Your task to perform on an android device: turn off location history Image 0: 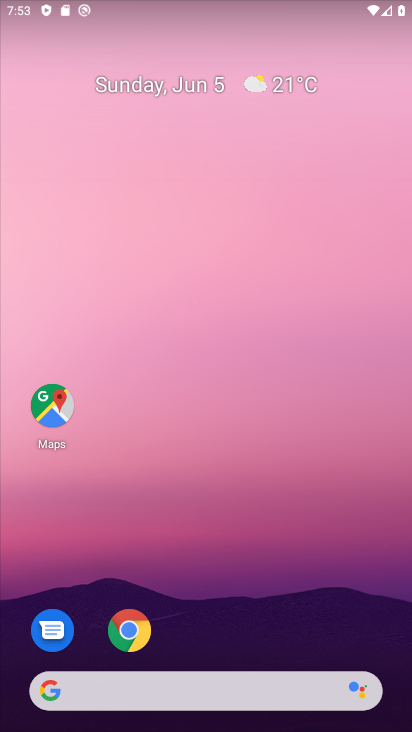
Step 0: drag from (228, 617) to (223, 292)
Your task to perform on an android device: turn off location history Image 1: 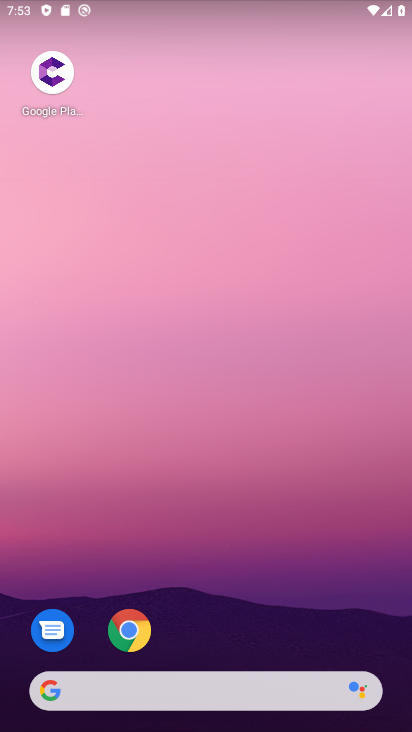
Step 1: drag from (216, 623) to (216, 268)
Your task to perform on an android device: turn off location history Image 2: 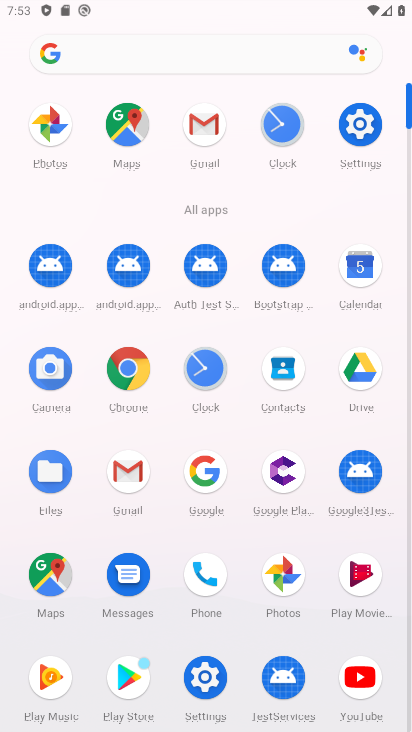
Step 2: click (358, 124)
Your task to perform on an android device: turn off location history Image 3: 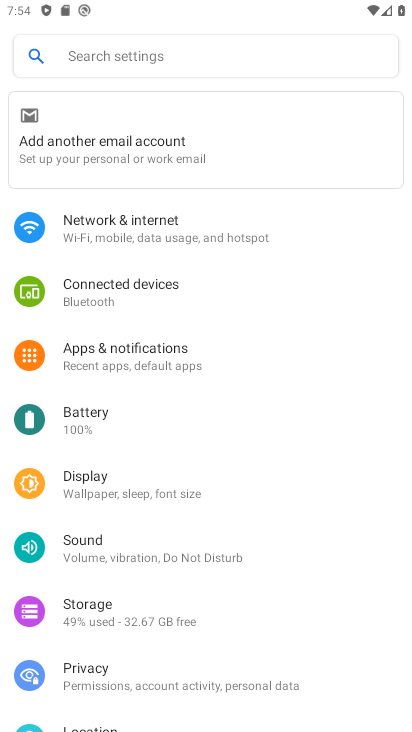
Step 3: drag from (172, 466) to (182, 198)
Your task to perform on an android device: turn off location history Image 4: 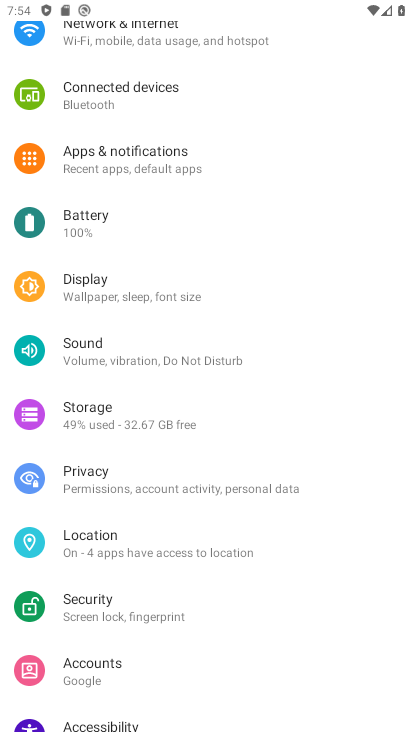
Step 4: click (130, 541)
Your task to perform on an android device: turn off location history Image 5: 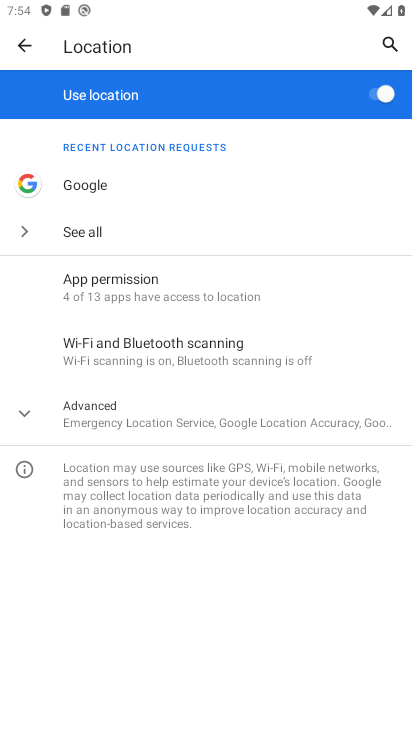
Step 5: click (133, 423)
Your task to perform on an android device: turn off location history Image 6: 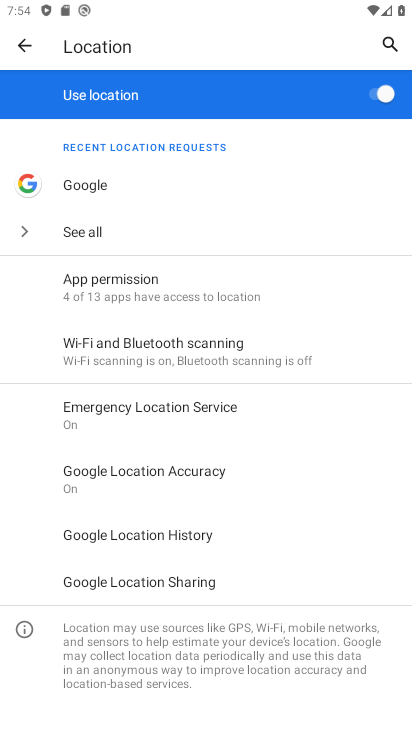
Step 6: click (164, 535)
Your task to perform on an android device: turn off location history Image 7: 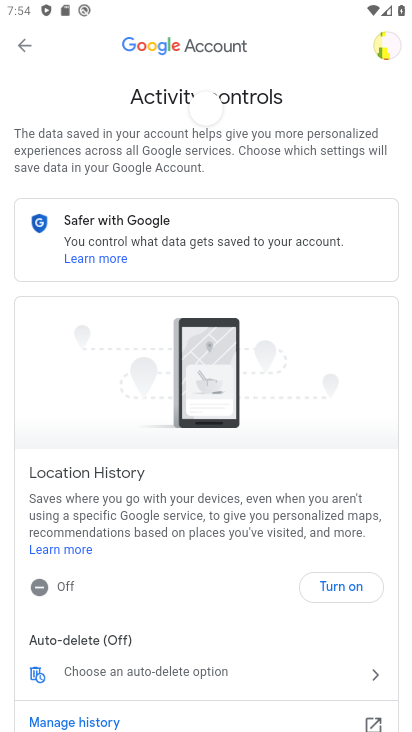
Step 7: task complete